Your task to perform on an android device: Go to Google maps Image 0: 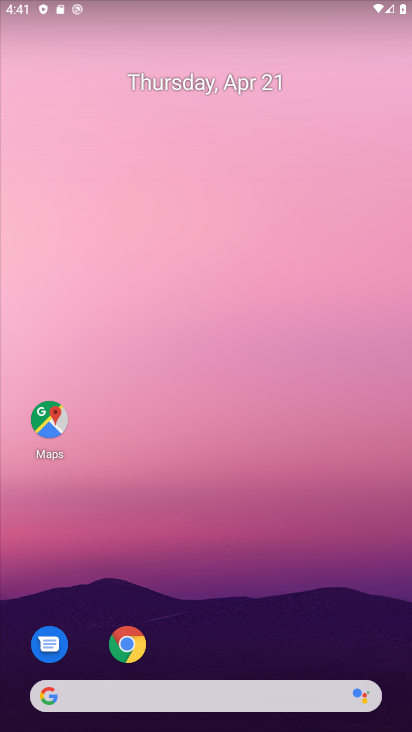
Step 0: drag from (259, 557) to (313, 151)
Your task to perform on an android device: Go to Google maps Image 1: 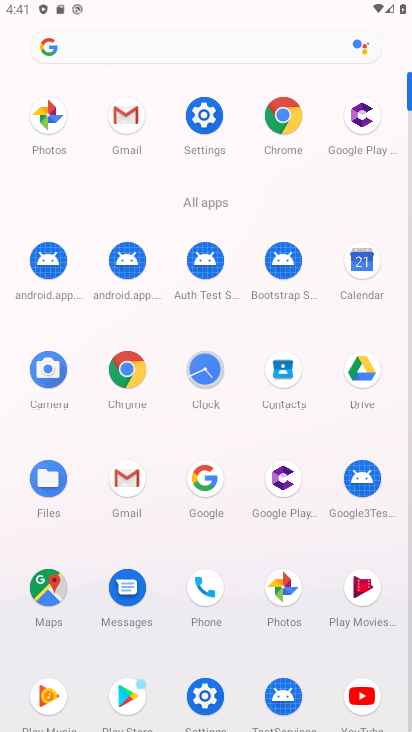
Step 1: click (43, 584)
Your task to perform on an android device: Go to Google maps Image 2: 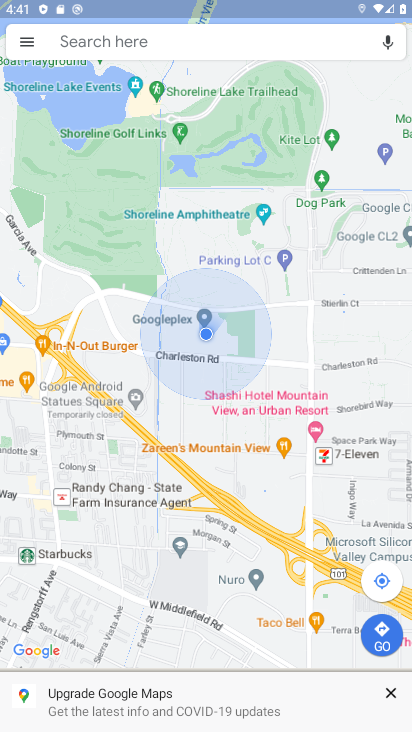
Step 2: task complete